Your task to perform on an android device: turn notification dots on Image 0: 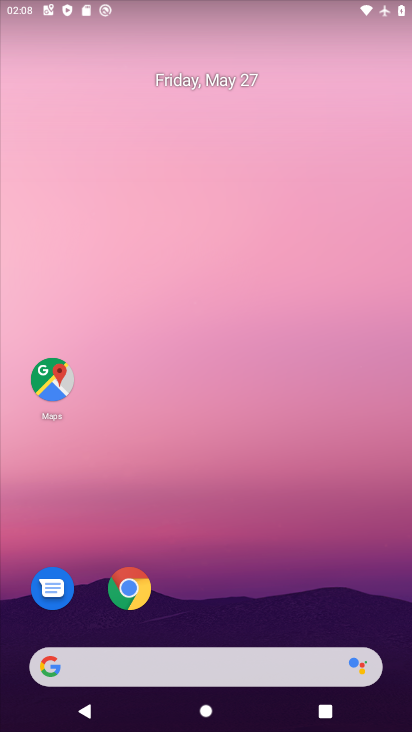
Step 0: drag from (368, 615) to (308, 29)
Your task to perform on an android device: turn notification dots on Image 1: 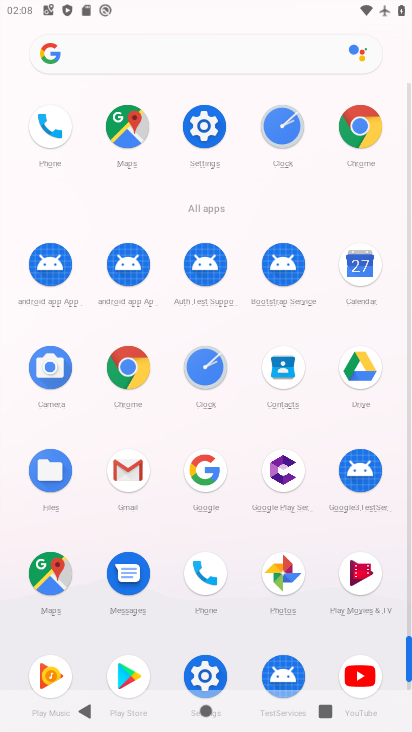
Step 1: click (203, 671)
Your task to perform on an android device: turn notification dots on Image 2: 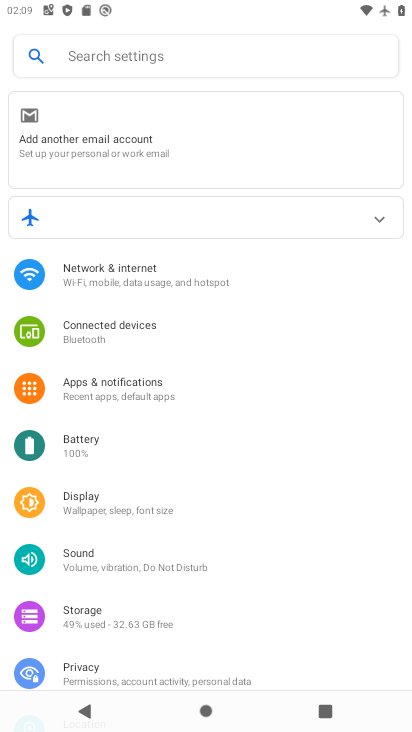
Step 2: click (177, 387)
Your task to perform on an android device: turn notification dots on Image 3: 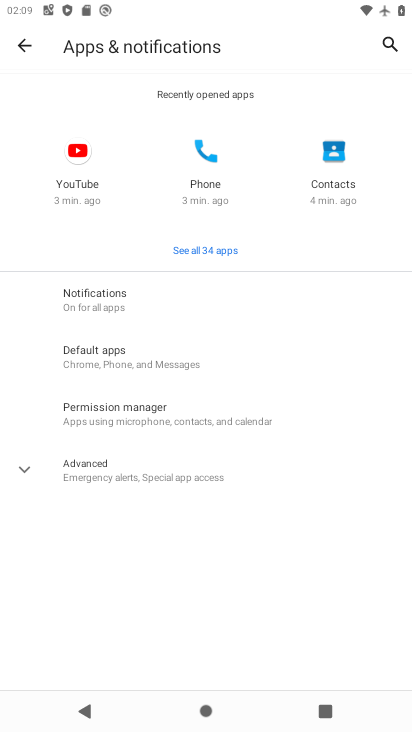
Step 3: click (97, 294)
Your task to perform on an android device: turn notification dots on Image 4: 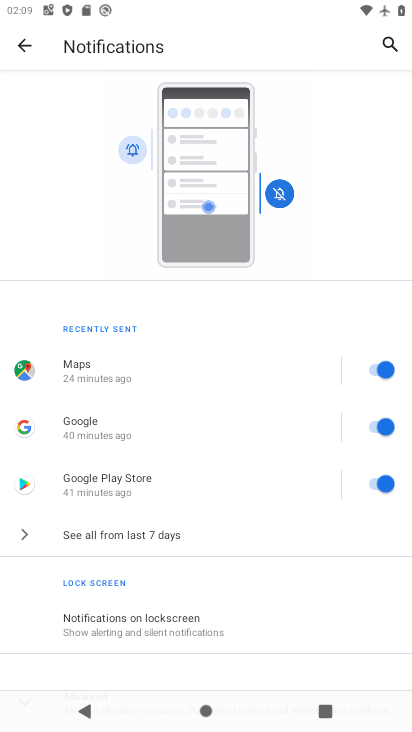
Step 4: drag from (335, 587) to (272, 110)
Your task to perform on an android device: turn notification dots on Image 5: 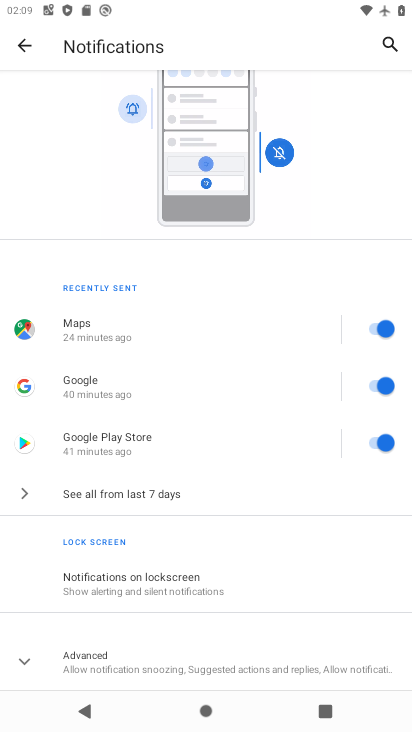
Step 5: click (30, 661)
Your task to perform on an android device: turn notification dots on Image 6: 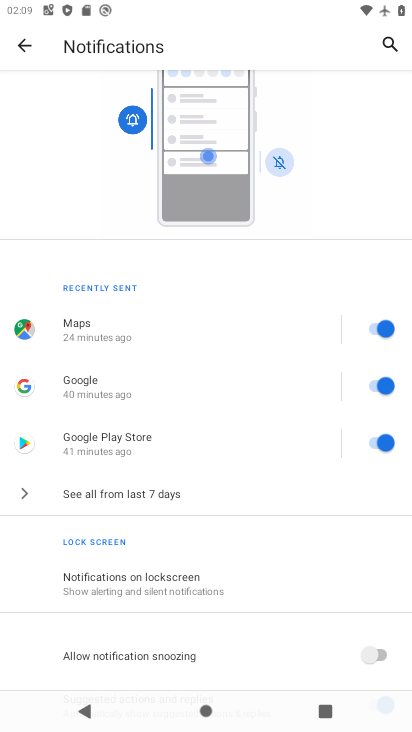
Step 6: drag from (248, 670) to (271, 227)
Your task to perform on an android device: turn notification dots on Image 7: 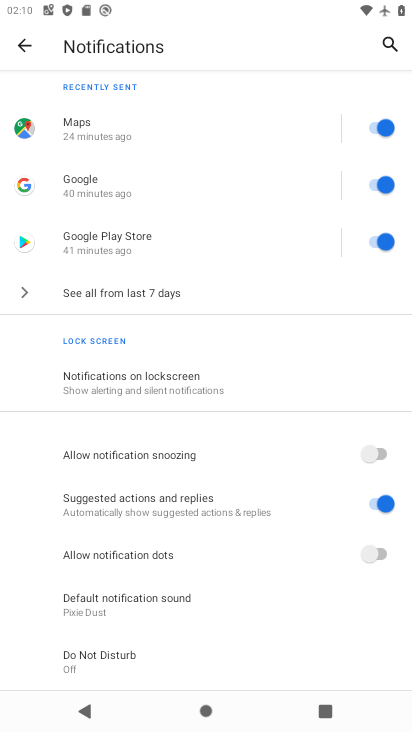
Step 7: click (381, 555)
Your task to perform on an android device: turn notification dots on Image 8: 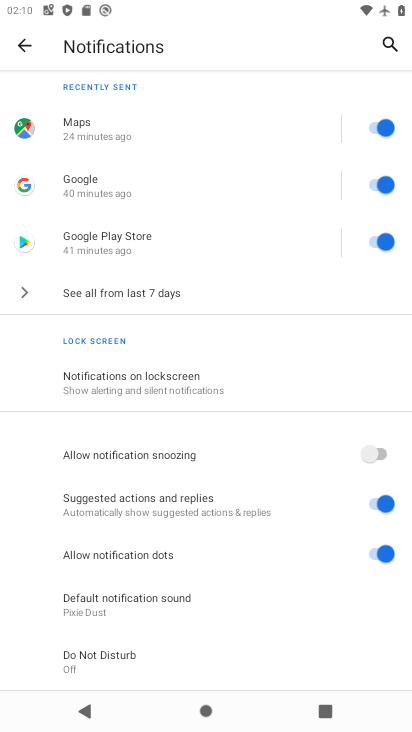
Step 8: task complete